Your task to perform on an android device: Show me popular games on the Play Store Image 0: 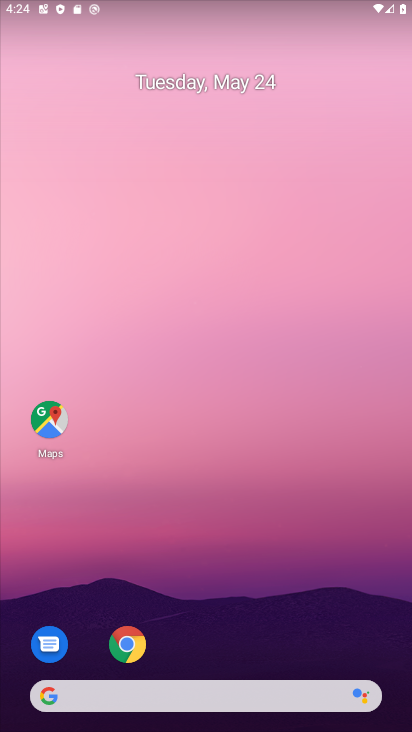
Step 0: drag from (363, 659) to (154, 153)
Your task to perform on an android device: Show me popular games on the Play Store Image 1: 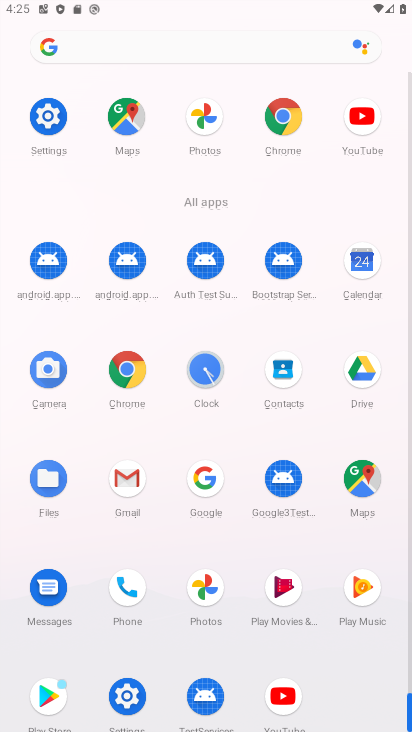
Step 1: drag from (179, 617) to (193, 193)
Your task to perform on an android device: Show me popular games on the Play Store Image 2: 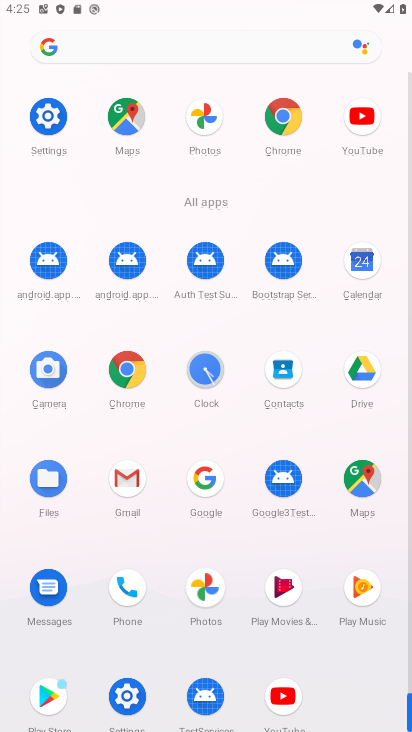
Step 2: drag from (131, 488) to (138, 235)
Your task to perform on an android device: Show me popular games on the Play Store Image 3: 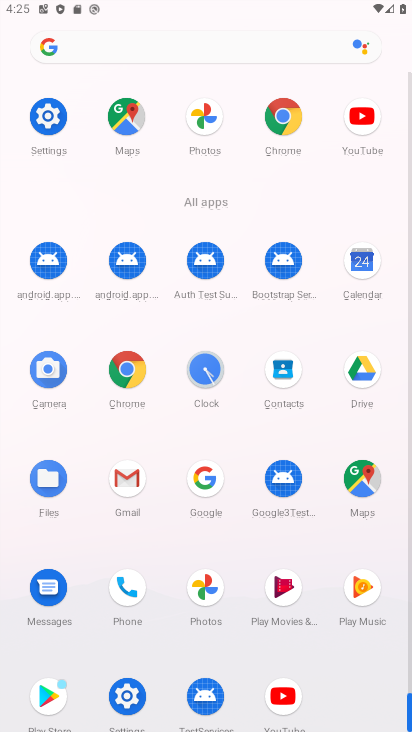
Step 3: drag from (171, 542) to (194, 129)
Your task to perform on an android device: Show me popular games on the Play Store Image 4: 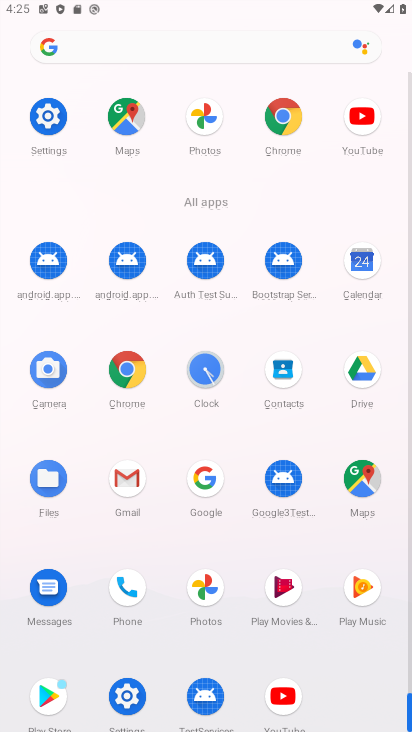
Step 4: drag from (193, 516) to (205, 160)
Your task to perform on an android device: Show me popular games on the Play Store Image 5: 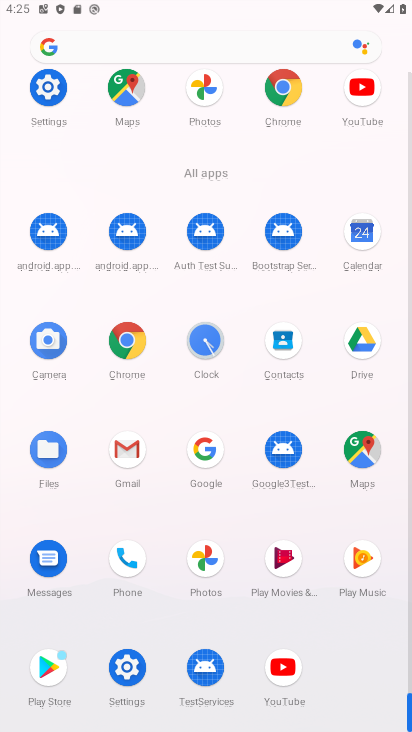
Step 5: click (47, 675)
Your task to perform on an android device: Show me popular games on the Play Store Image 6: 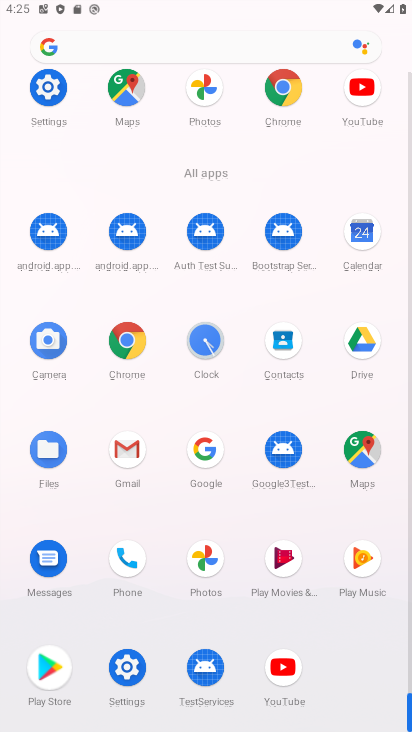
Step 6: click (47, 675)
Your task to perform on an android device: Show me popular games on the Play Store Image 7: 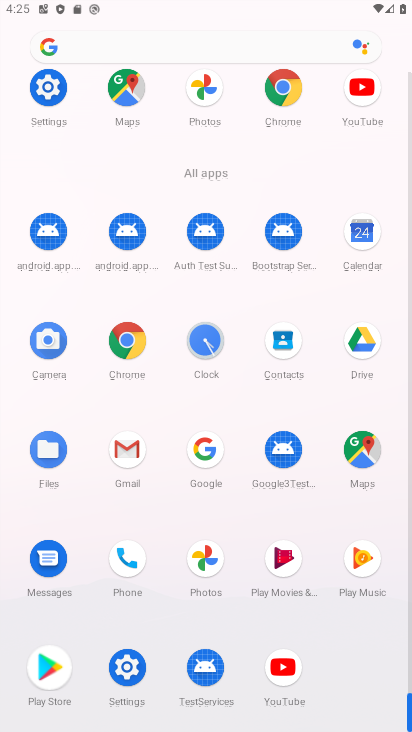
Step 7: click (45, 675)
Your task to perform on an android device: Show me popular games on the Play Store Image 8: 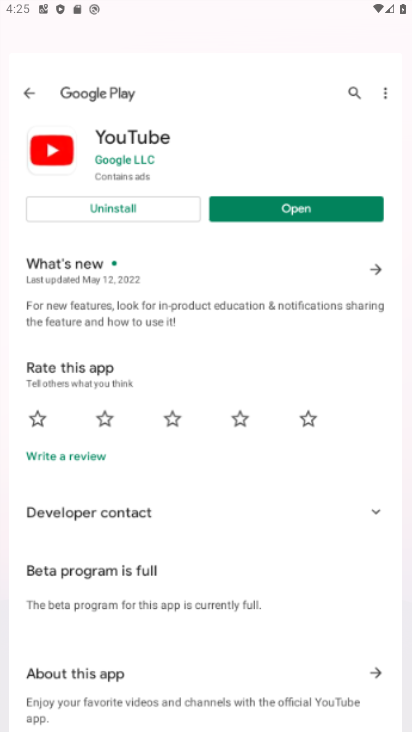
Step 8: click (47, 675)
Your task to perform on an android device: Show me popular games on the Play Store Image 9: 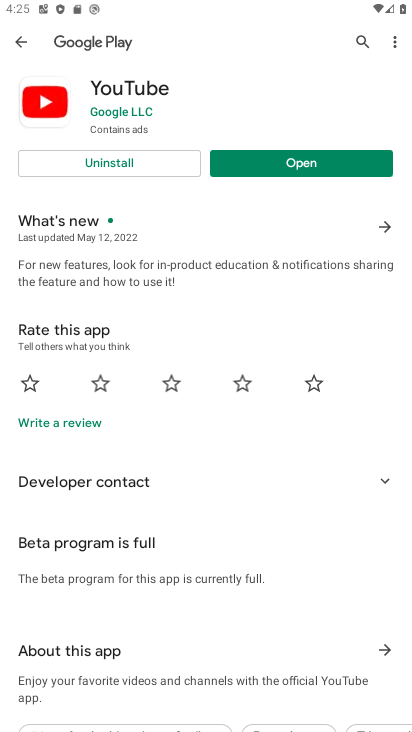
Step 9: click (57, 669)
Your task to perform on an android device: Show me popular games on the Play Store Image 10: 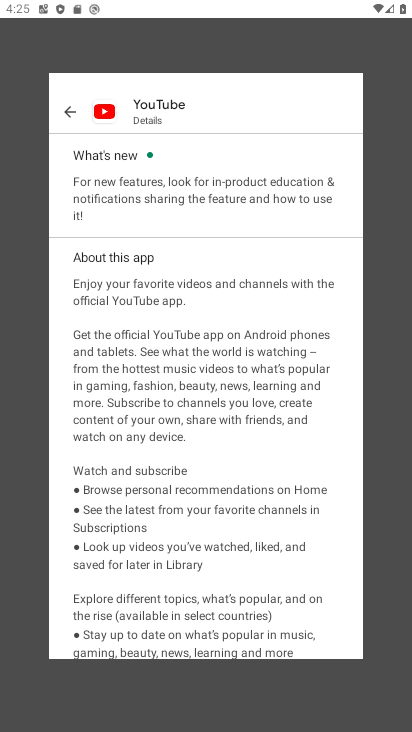
Step 10: click (61, 110)
Your task to perform on an android device: Show me popular games on the Play Store Image 11: 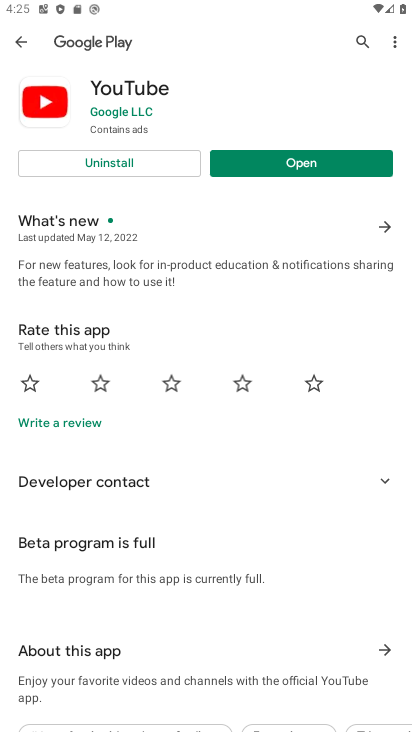
Step 11: click (107, 157)
Your task to perform on an android device: Show me popular games on the Play Store Image 12: 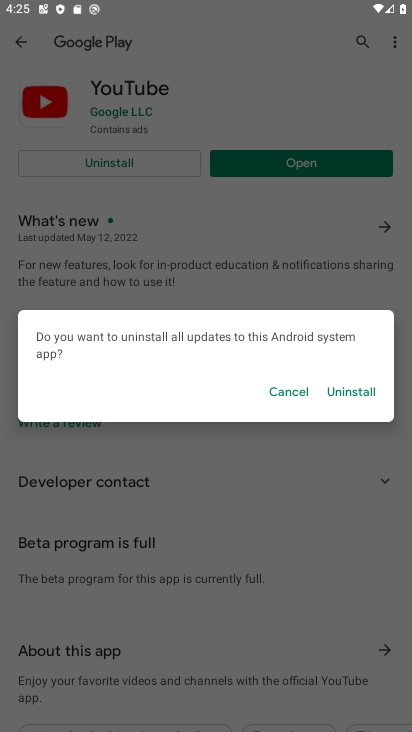
Step 12: click (291, 389)
Your task to perform on an android device: Show me popular games on the Play Store Image 13: 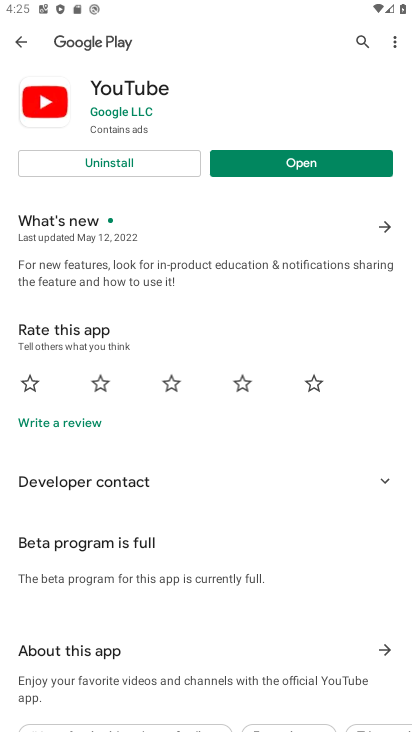
Step 13: click (317, 155)
Your task to perform on an android device: Show me popular games on the Play Store Image 14: 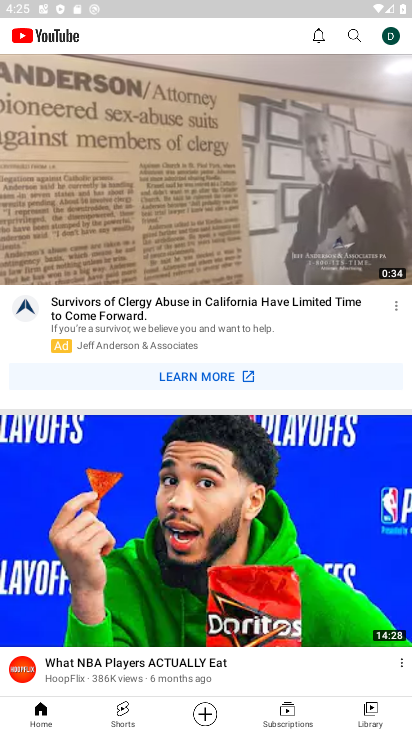
Step 14: task complete